Your task to perform on an android device: Open calendar and show me the first week of next month Image 0: 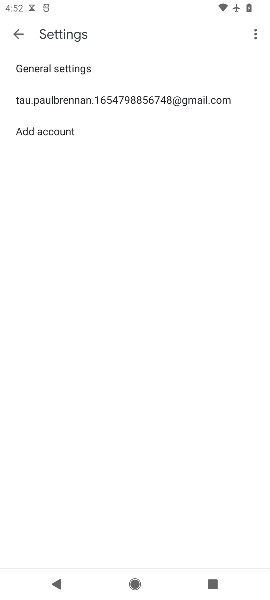
Step 0: press home button
Your task to perform on an android device: Open calendar and show me the first week of next month Image 1: 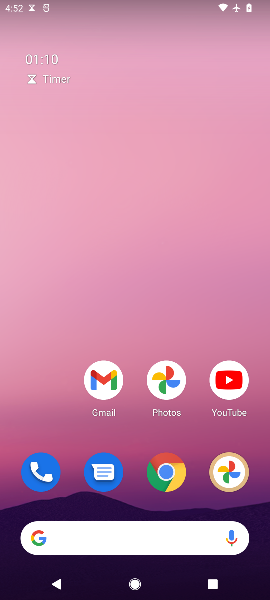
Step 1: drag from (145, 497) to (225, 61)
Your task to perform on an android device: Open calendar and show me the first week of next month Image 2: 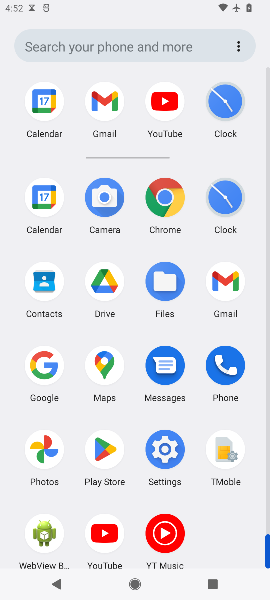
Step 2: click (55, 217)
Your task to perform on an android device: Open calendar and show me the first week of next month Image 3: 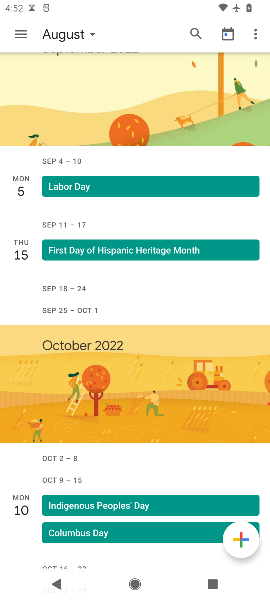
Step 3: click (62, 36)
Your task to perform on an android device: Open calendar and show me the first week of next month Image 4: 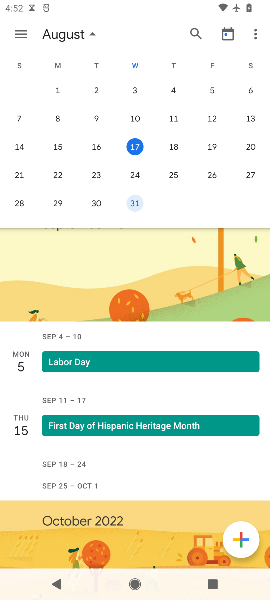
Step 4: drag from (212, 161) to (2, 97)
Your task to perform on an android device: Open calendar and show me the first week of next month Image 5: 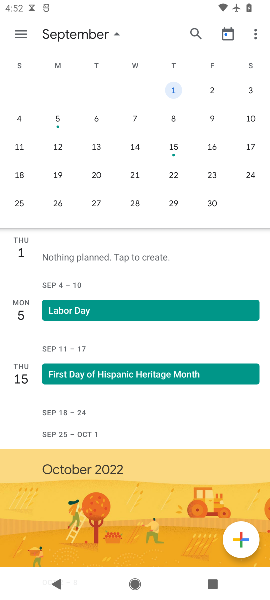
Step 5: click (20, 31)
Your task to perform on an android device: Open calendar and show me the first week of next month Image 6: 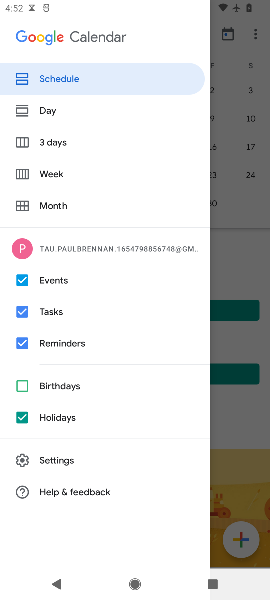
Step 6: click (54, 183)
Your task to perform on an android device: Open calendar and show me the first week of next month Image 7: 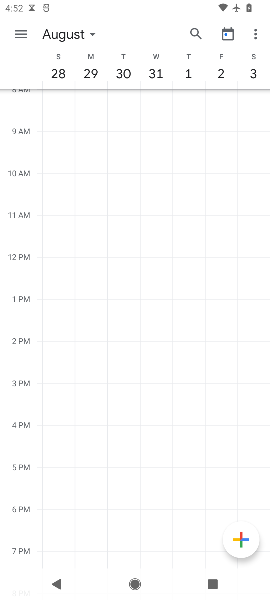
Step 7: task complete